Your task to perform on an android device: allow cookies in the chrome app Image 0: 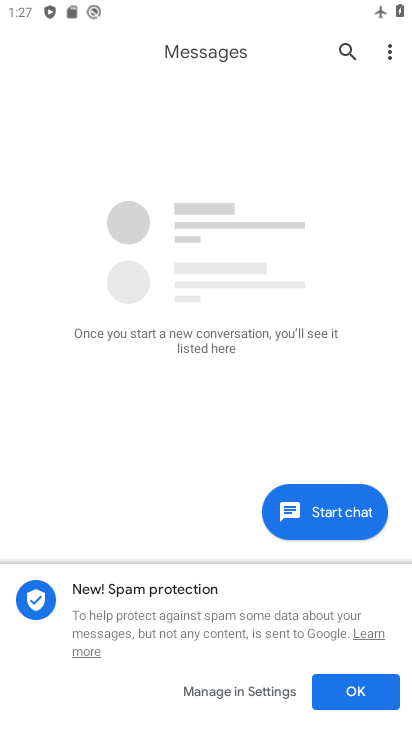
Step 0: drag from (180, 659) to (214, 165)
Your task to perform on an android device: allow cookies in the chrome app Image 1: 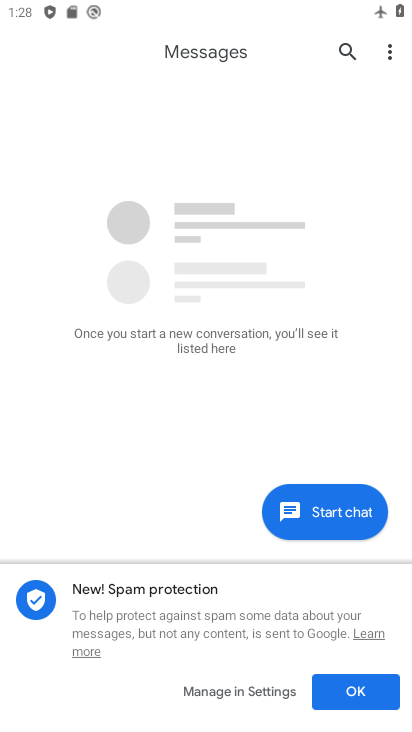
Step 1: press home button
Your task to perform on an android device: allow cookies in the chrome app Image 2: 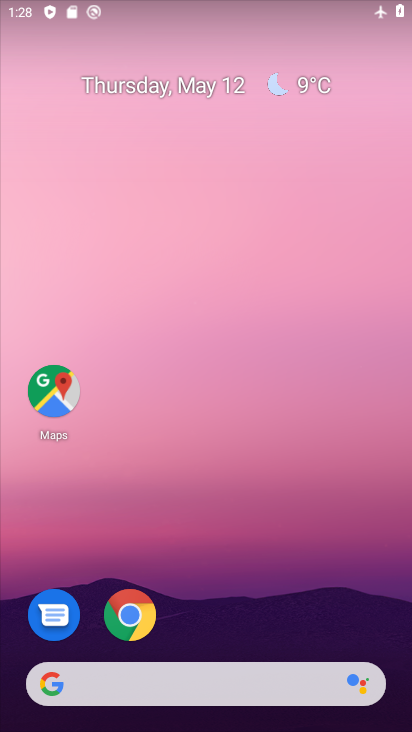
Step 2: click (133, 622)
Your task to perform on an android device: allow cookies in the chrome app Image 3: 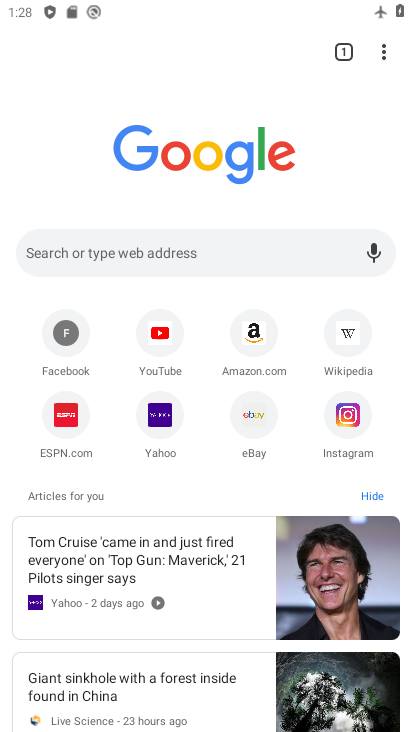
Step 3: drag from (389, 61) to (239, 439)
Your task to perform on an android device: allow cookies in the chrome app Image 4: 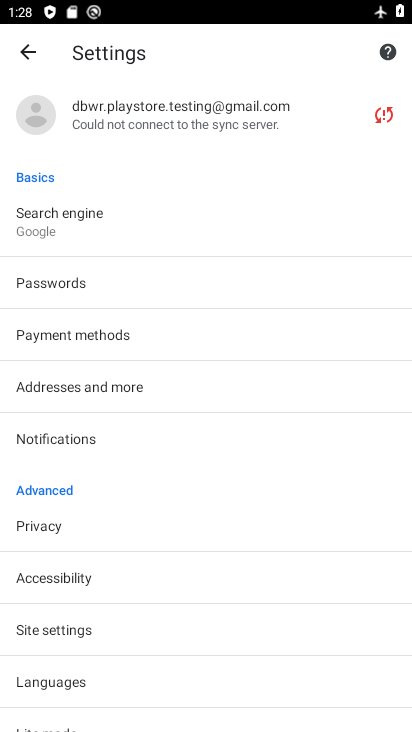
Step 4: click (36, 629)
Your task to perform on an android device: allow cookies in the chrome app Image 5: 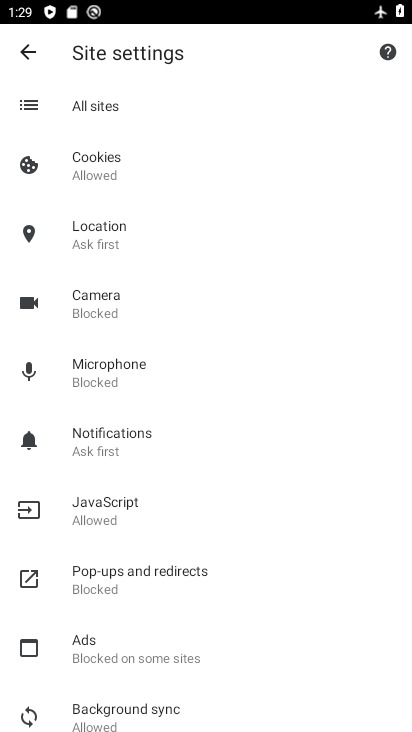
Step 5: click (84, 181)
Your task to perform on an android device: allow cookies in the chrome app Image 6: 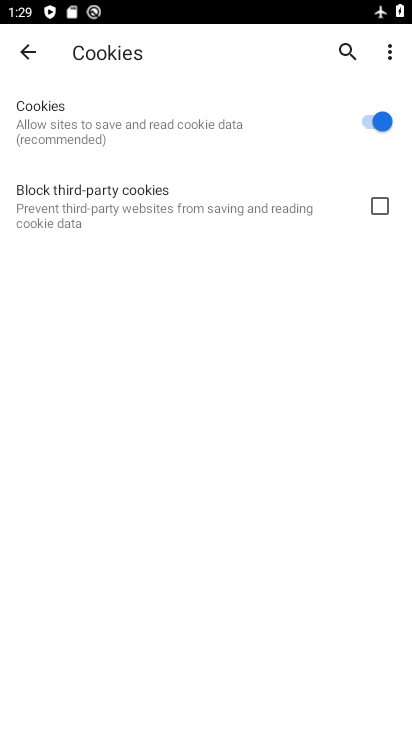
Step 6: task complete